Your task to perform on an android device: set the stopwatch Image 0: 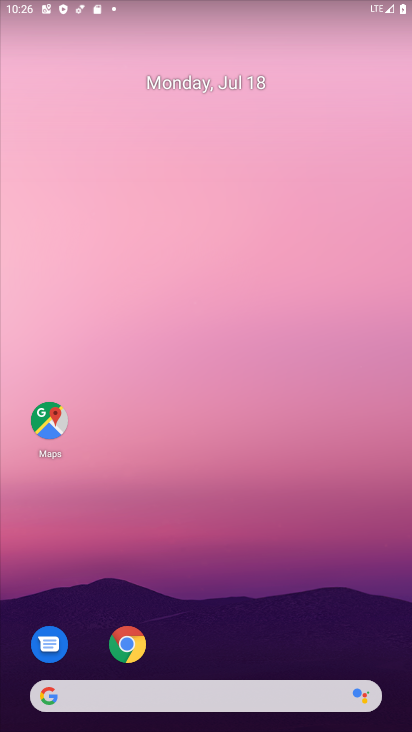
Step 0: drag from (330, 649) to (376, 109)
Your task to perform on an android device: set the stopwatch Image 1: 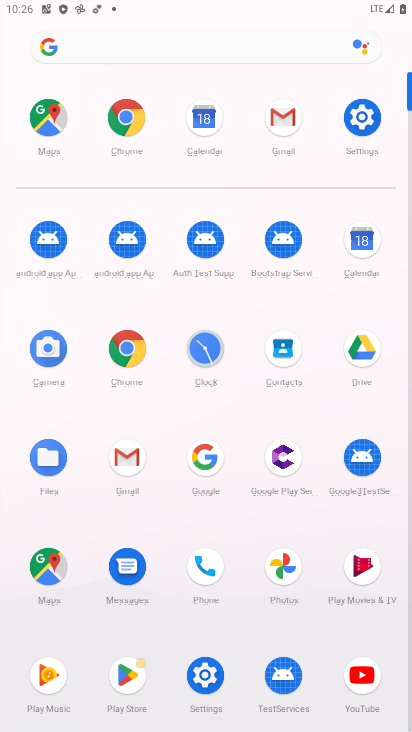
Step 1: click (212, 353)
Your task to perform on an android device: set the stopwatch Image 2: 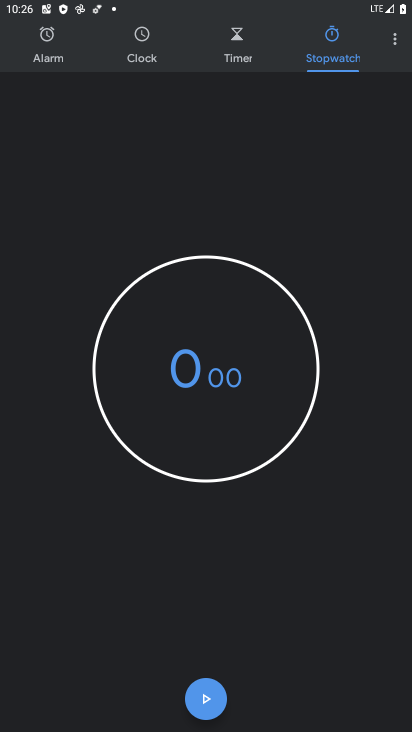
Step 2: task complete